Your task to perform on an android device: see sites visited before in the chrome app Image 0: 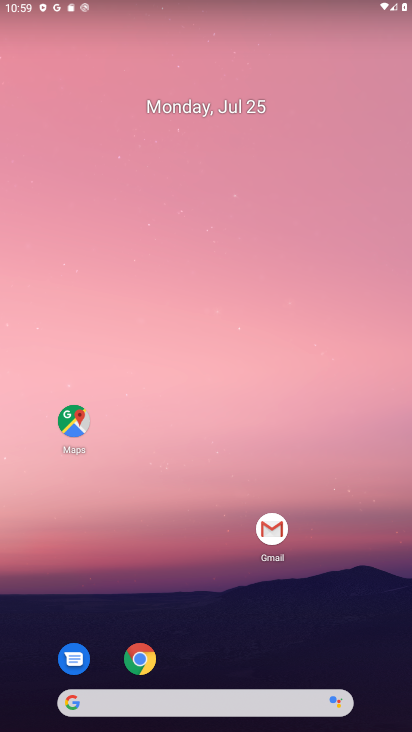
Step 0: click (151, 655)
Your task to perform on an android device: see sites visited before in the chrome app Image 1: 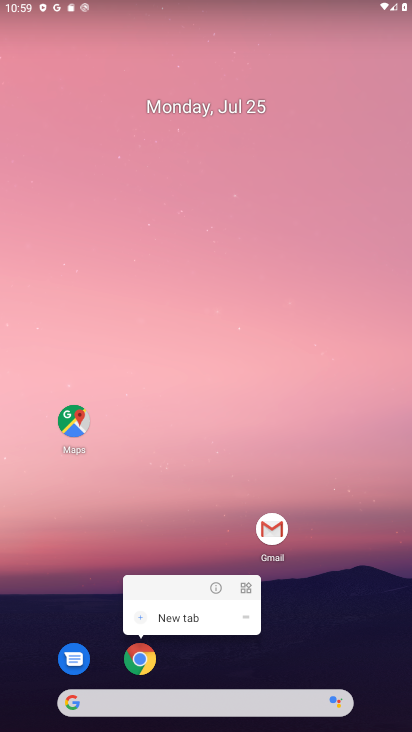
Step 1: click (148, 657)
Your task to perform on an android device: see sites visited before in the chrome app Image 2: 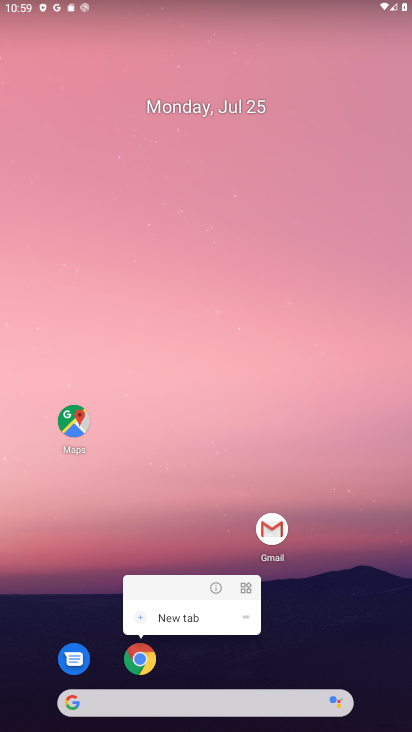
Step 2: click (140, 664)
Your task to perform on an android device: see sites visited before in the chrome app Image 3: 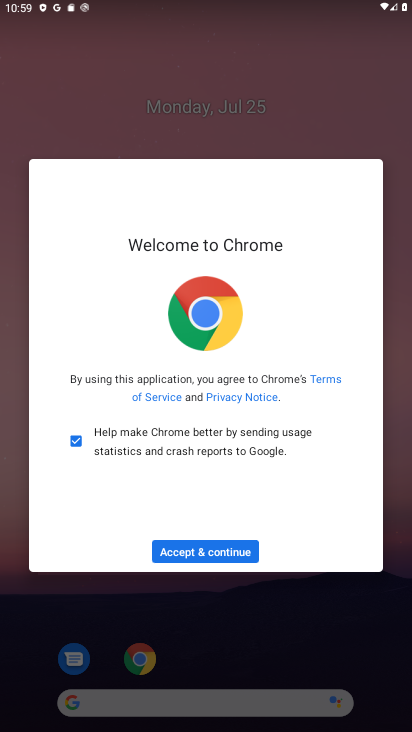
Step 3: click (210, 550)
Your task to perform on an android device: see sites visited before in the chrome app Image 4: 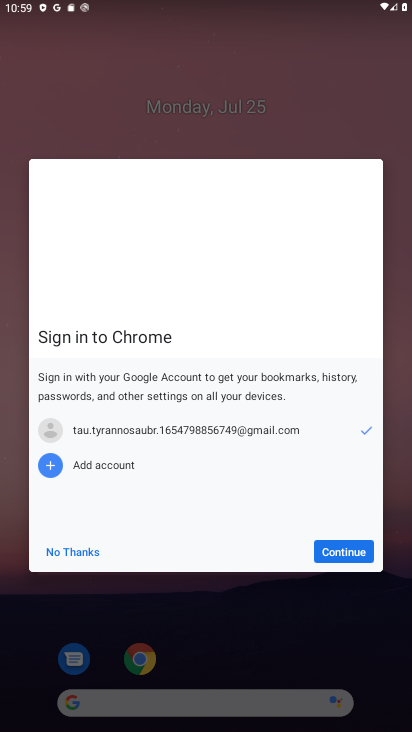
Step 4: click (338, 547)
Your task to perform on an android device: see sites visited before in the chrome app Image 5: 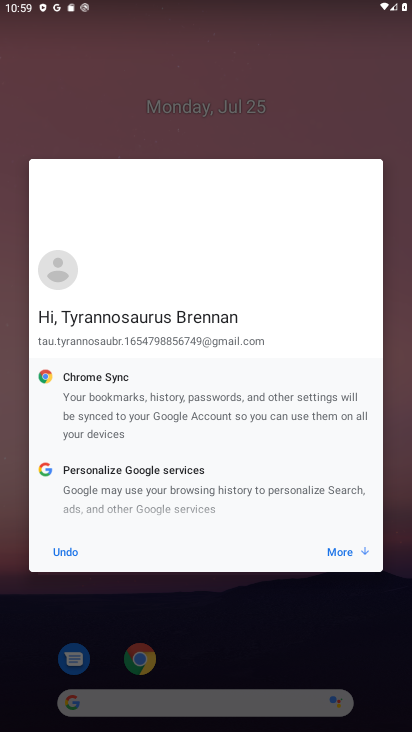
Step 5: click (338, 547)
Your task to perform on an android device: see sites visited before in the chrome app Image 6: 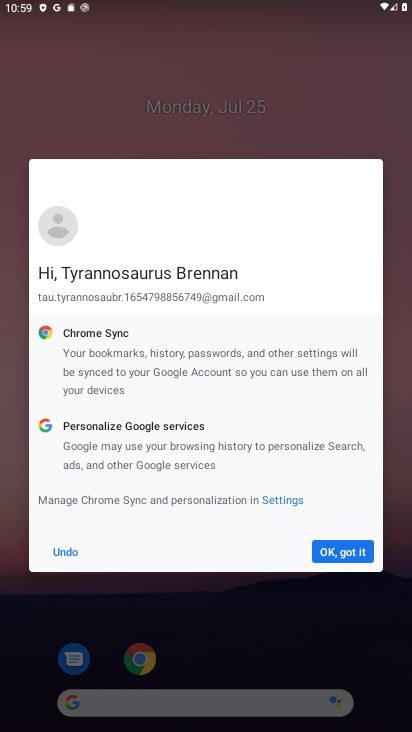
Step 6: click (338, 554)
Your task to perform on an android device: see sites visited before in the chrome app Image 7: 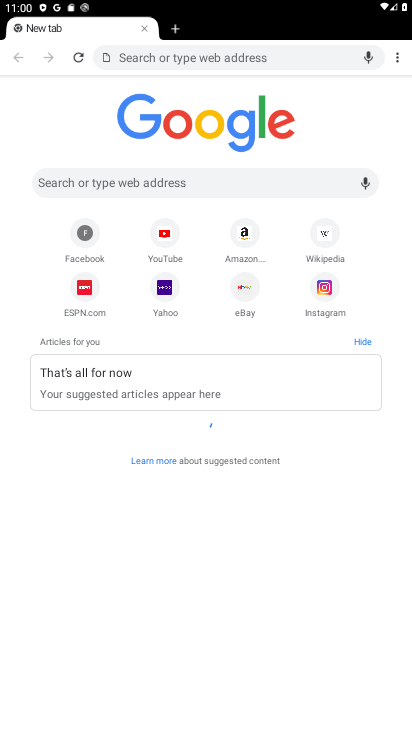
Step 7: click (392, 62)
Your task to perform on an android device: see sites visited before in the chrome app Image 8: 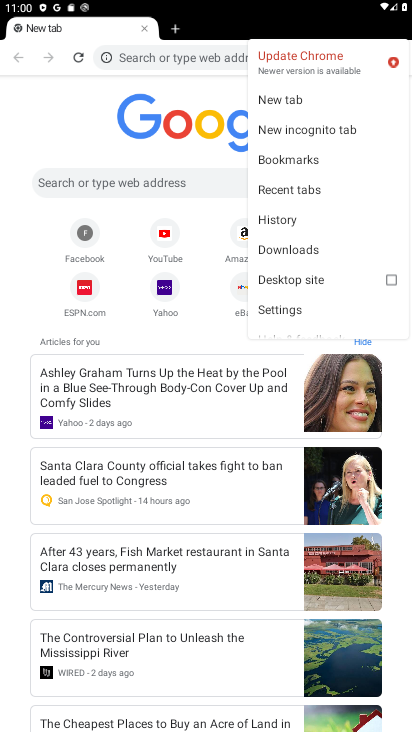
Step 8: click (273, 304)
Your task to perform on an android device: see sites visited before in the chrome app Image 9: 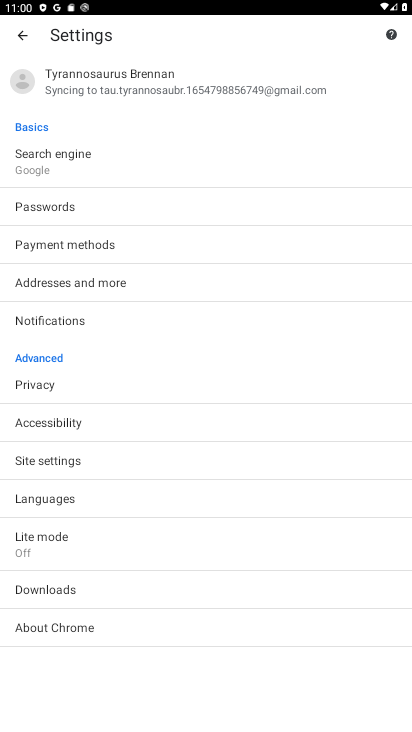
Step 9: click (54, 458)
Your task to perform on an android device: see sites visited before in the chrome app Image 10: 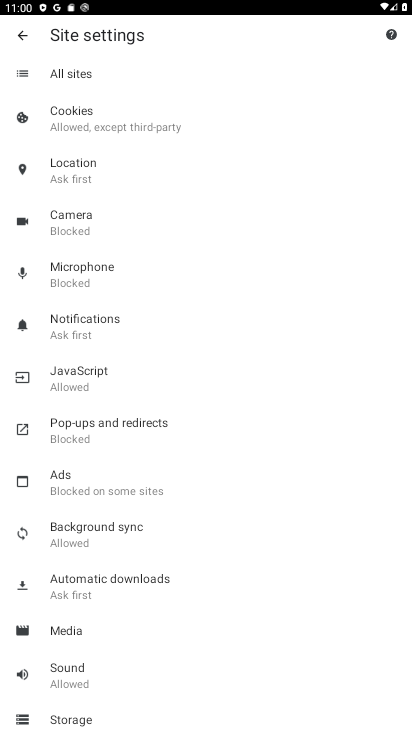
Step 10: click (84, 72)
Your task to perform on an android device: see sites visited before in the chrome app Image 11: 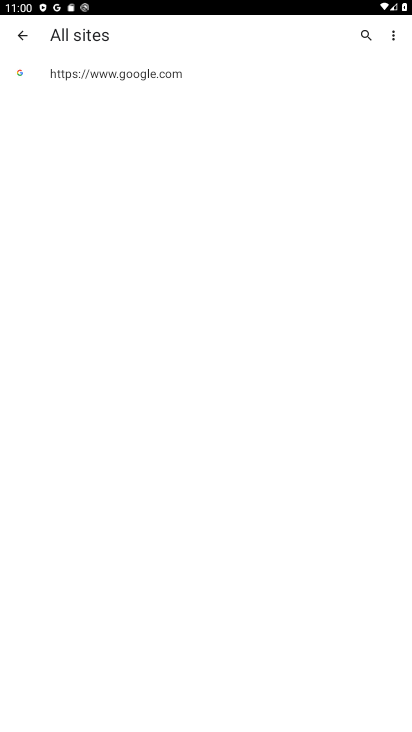
Step 11: click (252, 186)
Your task to perform on an android device: see sites visited before in the chrome app Image 12: 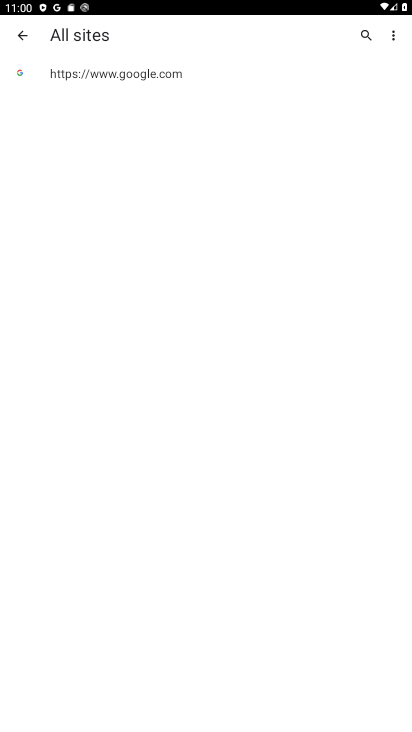
Step 12: task complete